Your task to perform on an android device: toggle wifi Image 0: 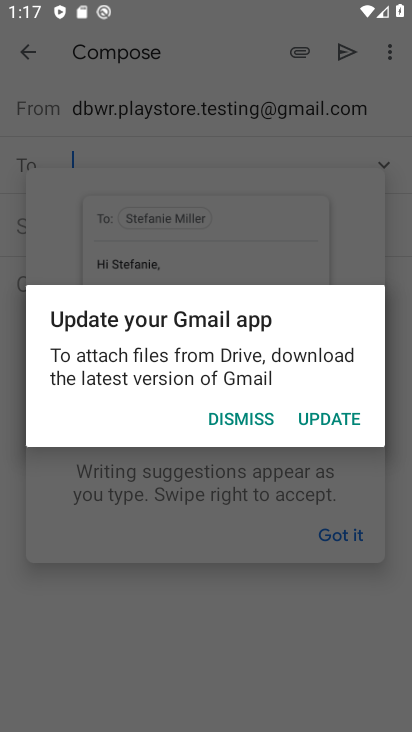
Step 0: press home button
Your task to perform on an android device: toggle wifi Image 1: 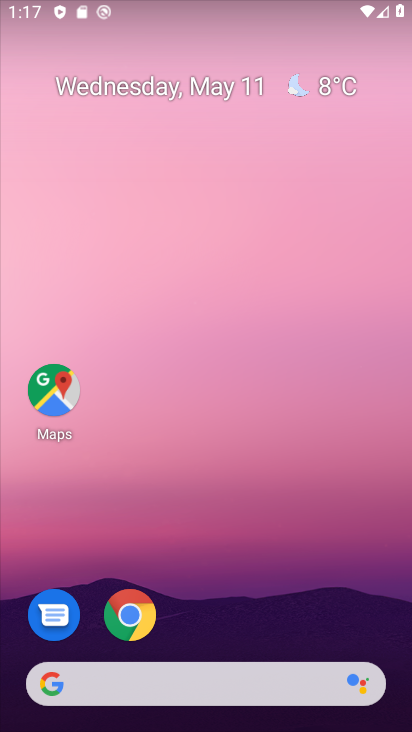
Step 1: drag from (353, 3) to (398, 597)
Your task to perform on an android device: toggle wifi Image 2: 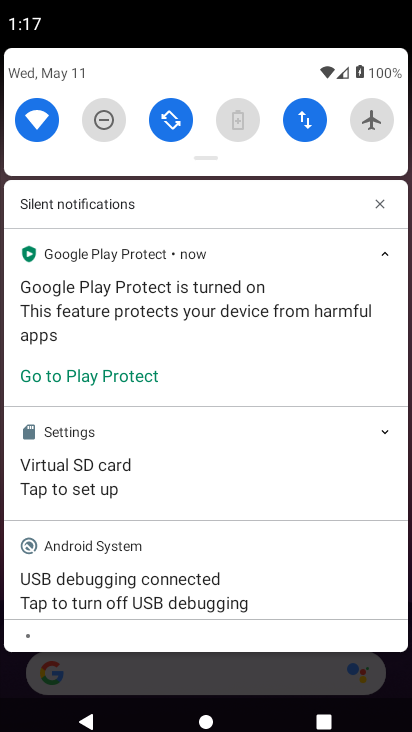
Step 2: click (42, 123)
Your task to perform on an android device: toggle wifi Image 3: 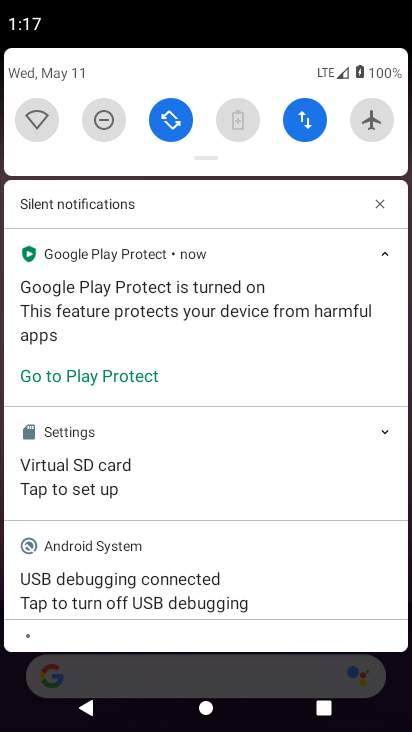
Step 3: task complete